Your task to perform on an android device: Open notification settings Image 0: 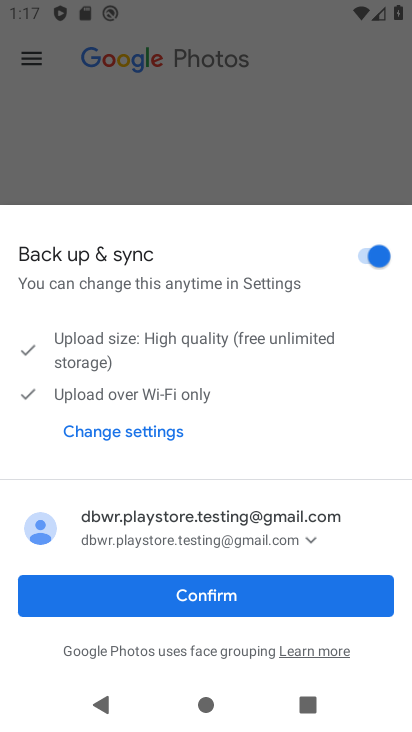
Step 0: click (224, 601)
Your task to perform on an android device: Open notification settings Image 1: 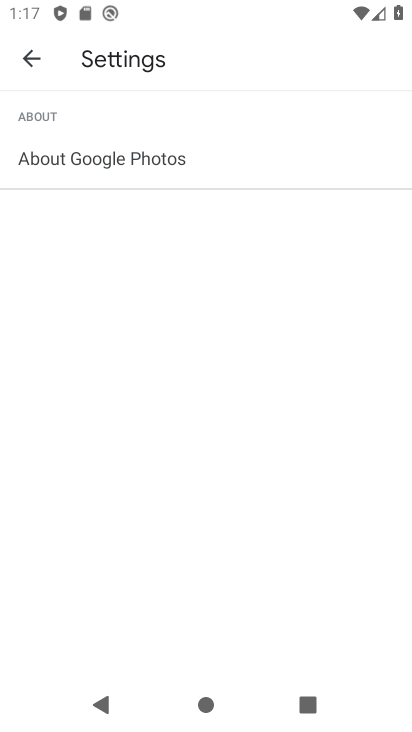
Step 1: drag from (289, 551) to (323, 259)
Your task to perform on an android device: Open notification settings Image 2: 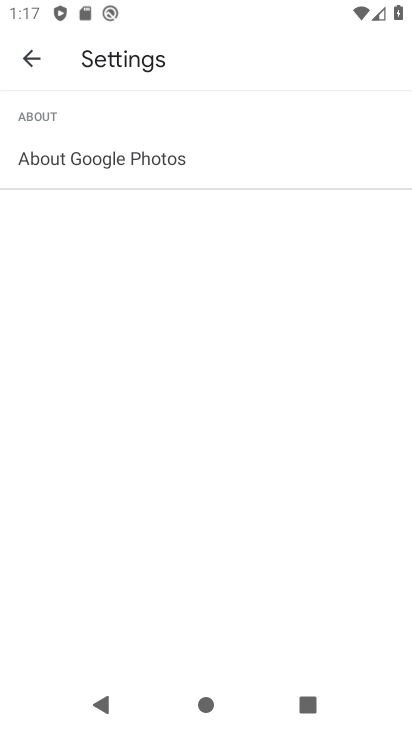
Step 2: drag from (237, 550) to (267, 360)
Your task to perform on an android device: Open notification settings Image 3: 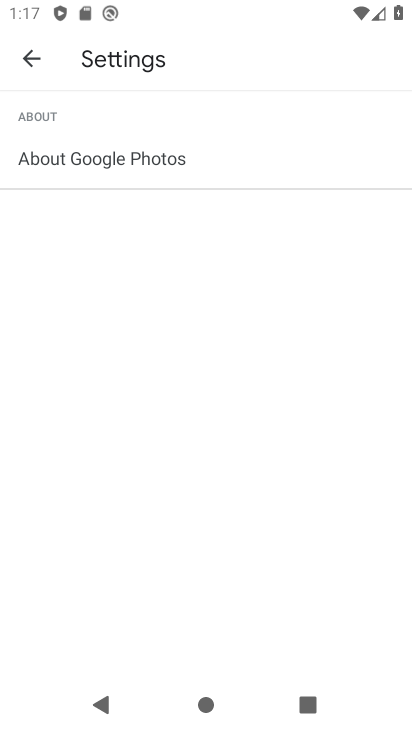
Step 3: press home button
Your task to perform on an android device: Open notification settings Image 4: 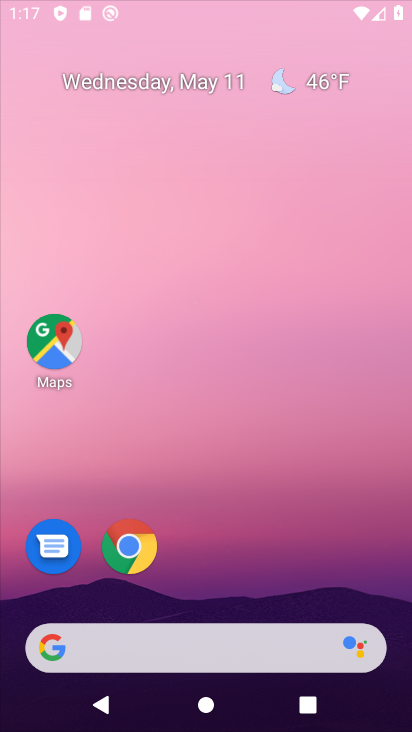
Step 4: drag from (217, 615) to (337, 8)
Your task to perform on an android device: Open notification settings Image 5: 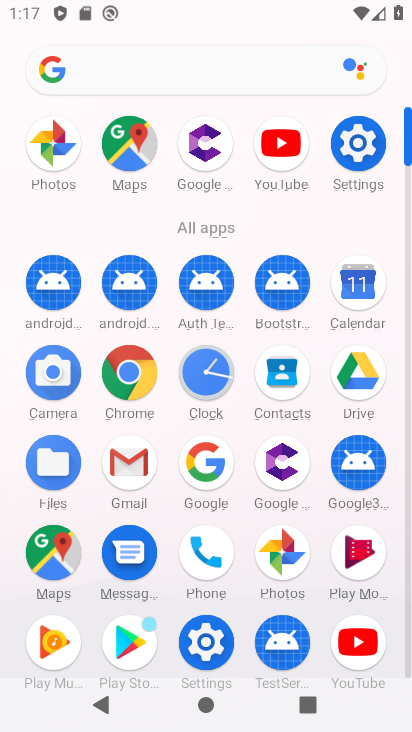
Step 5: click (367, 130)
Your task to perform on an android device: Open notification settings Image 6: 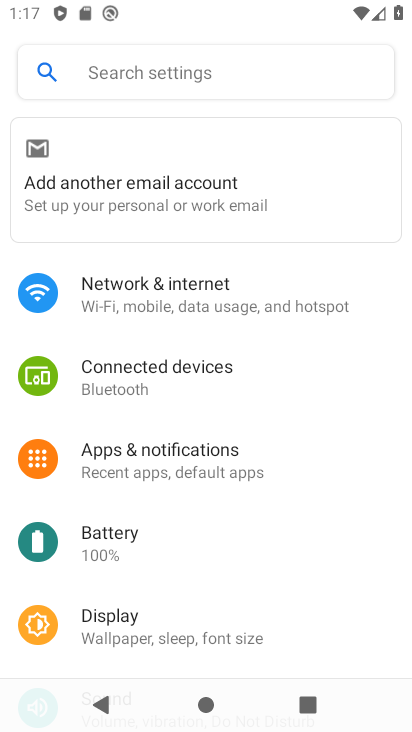
Step 6: drag from (230, 623) to (261, 302)
Your task to perform on an android device: Open notification settings Image 7: 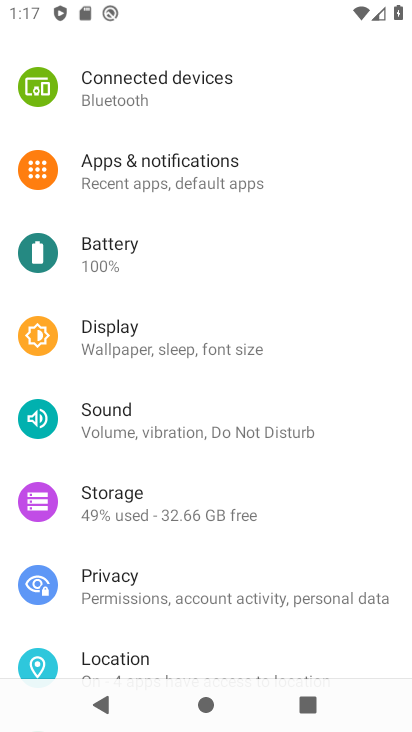
Step 7: click (204, 180)
Your task to perform on an android device: Open notification settings Image 8: 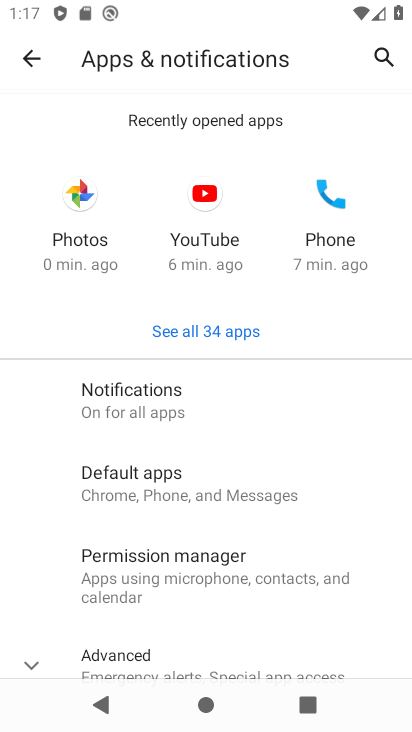
Step 8: click (147, 406)
Your task to perform on an android device: Open notification settings Image 9: 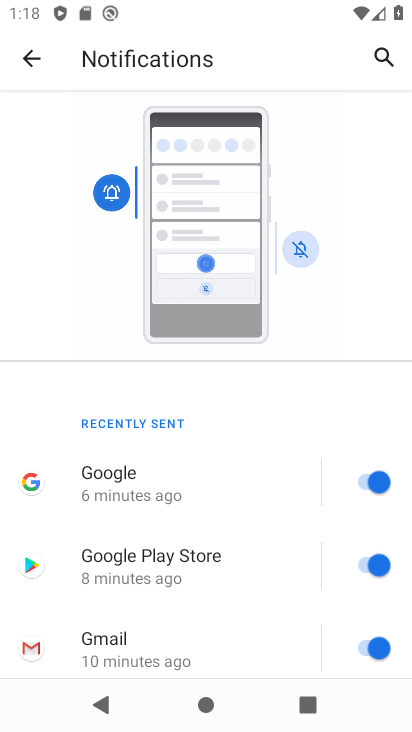
Step 9: task complete